Your task to perform on an android device: Go to location settings Image 0: 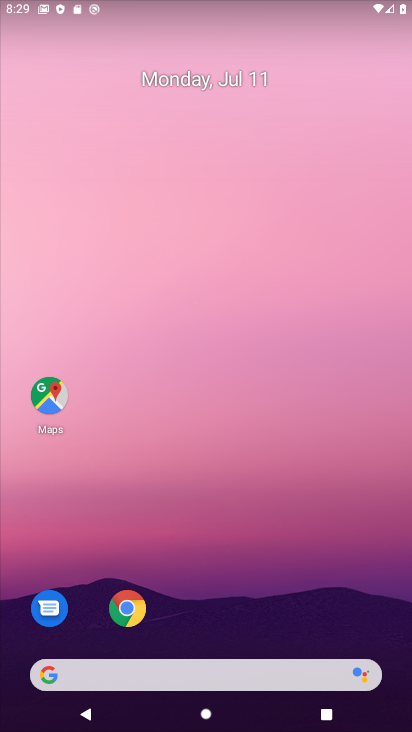
Step 0: drag from (241, 602) to (172, 2)
Your task to perform on an android device: Go to location settings Image 1: 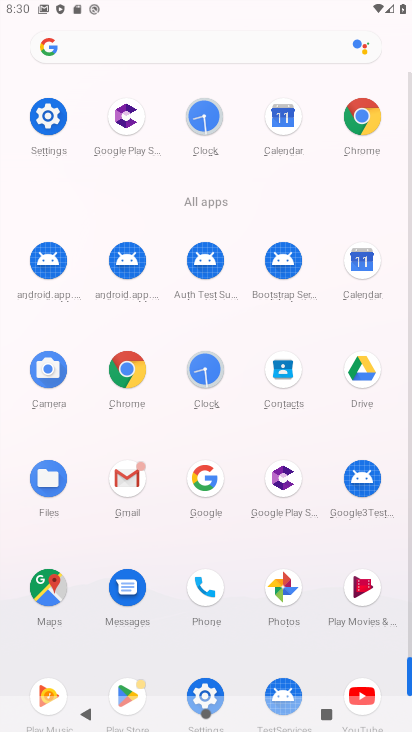
Step 1: click (61, 127)
Your task to perform on an android device: Go to location settings Image 2: 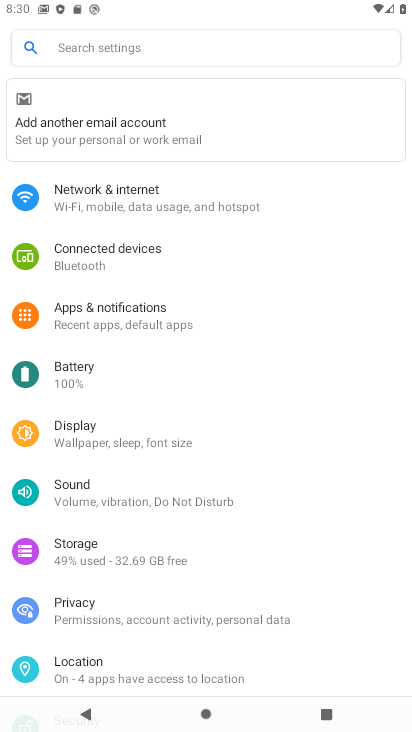
Step 2: drag from (133, 581) to (125, 198)
Your task to perform on an android device: Go to location settings Image 3: 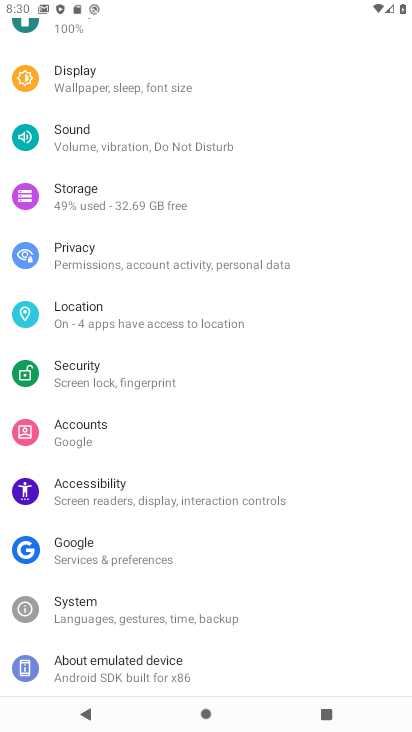
Step 3: click (79, 321)
Your task to perform on an android device: Go to location settings Image 4: 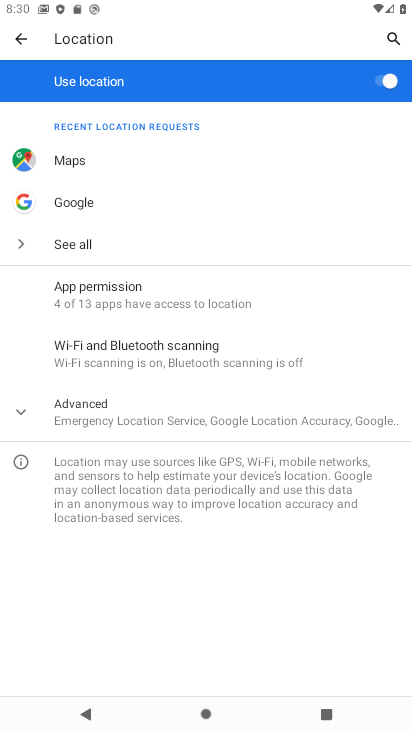
Step 4: task complete